Your task to perform on an android device: turn notification dots on Image 0: 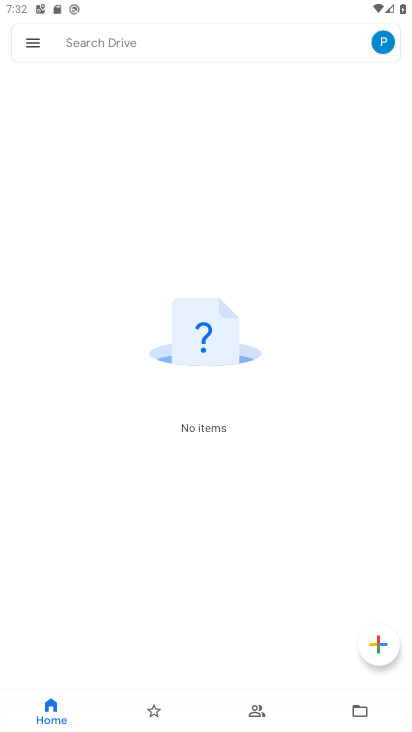
Step 0: press home button
Your task to perform on an android device: turn notification dots on Image 1: 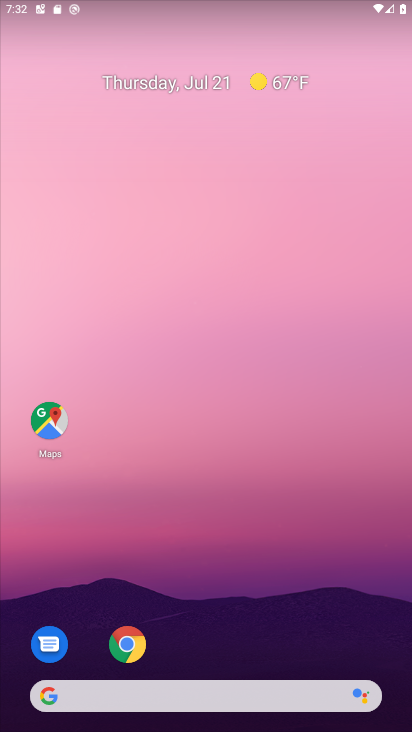
Step 1: drag from (256, 628) to (252, 202)
Your task to perform on an android device: turn notification dots on Image 2: 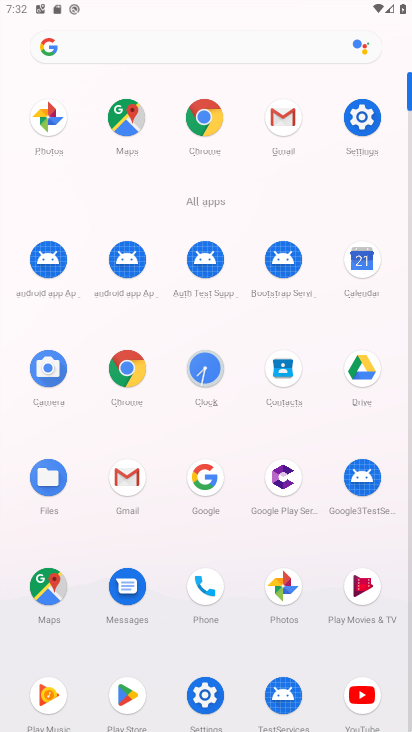
Step 2: click (217, 685)
Your task to perform on an android device: turn notification dots on Image 3: 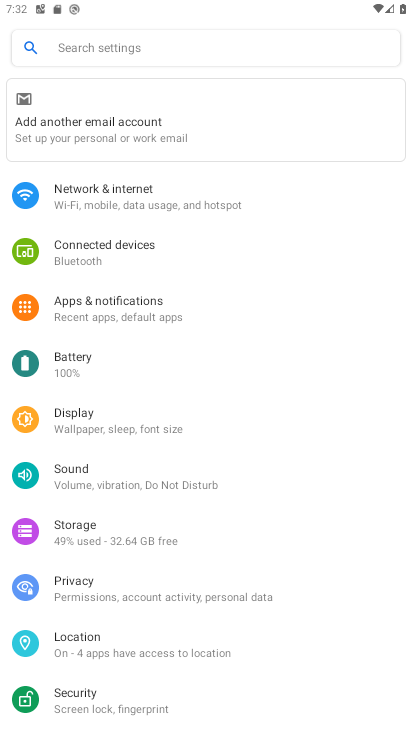
Step 3: click (140, 302)
Your task to perform on an android device: turn notification dots on Image 4: 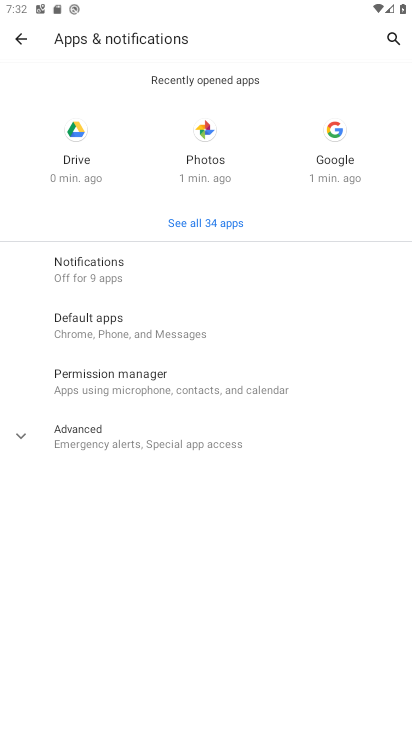
Step 4: click (124, 276)
Your task to perform on an android device: turn notification dots on Image 5: 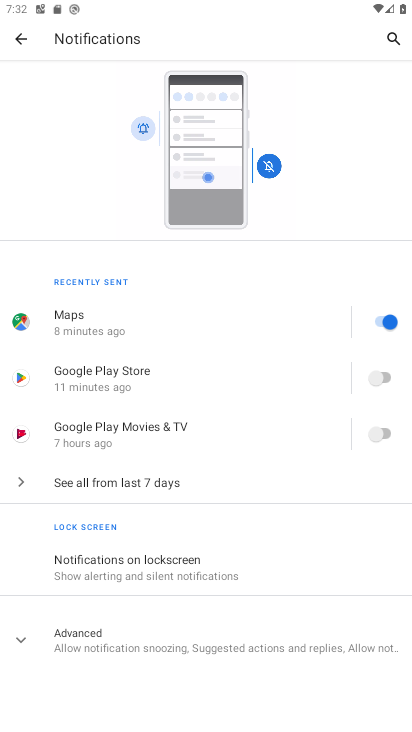
Step 5: click (144, 646)
Your task to perform on an android device: turn notification dots on Image 6: 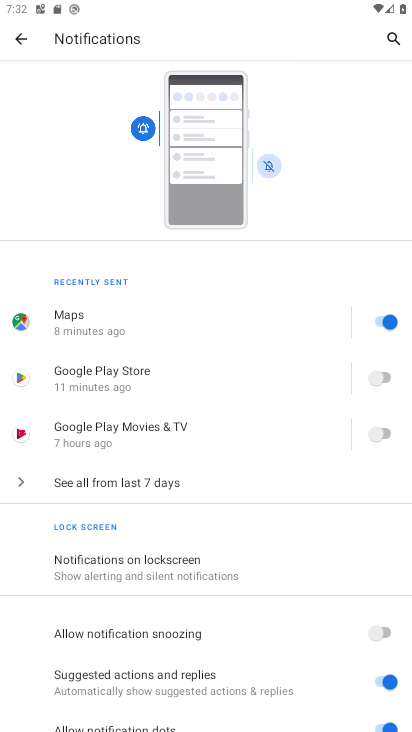
Step 6: task complete